Your task to perform on an android device: choose inbox layout in the gmail app Image 0: 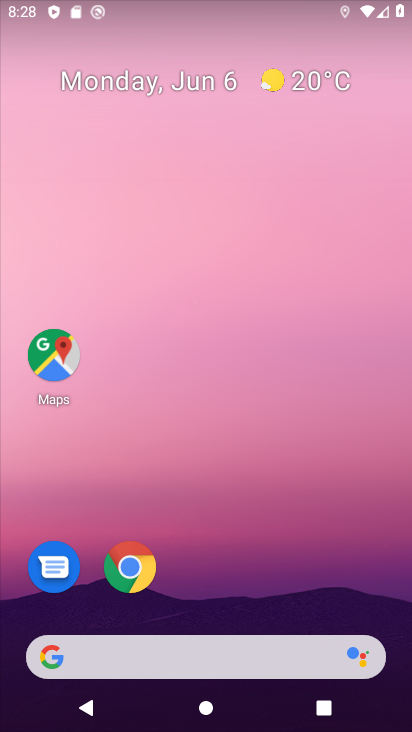
Step 0: drag from (189, 607) to (239, 41)
Your task to perform on an android device: choose inbox layout in the gmail app Image 1: 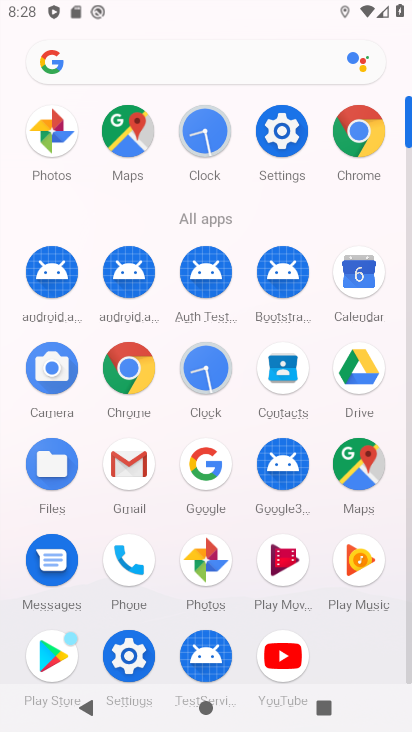
Step 1: click (135, 463)
Your task to perform on an android device: choose inbox layout in the gmail app Image 2: 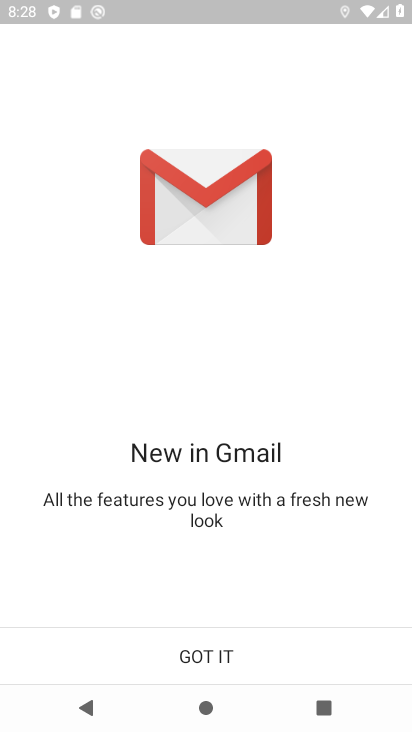
Step 2: click (124, 651)
Your task to perform on an android device: choose inbox layout in the gmail app Image 3: 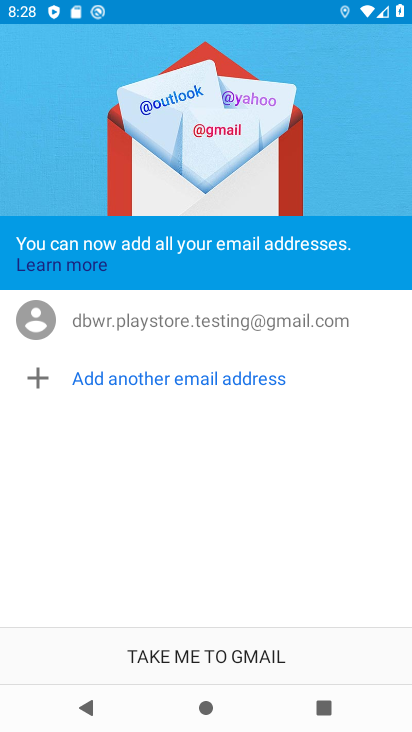
Step 3: click (124, 651)
Your task to perform on an android device: choose inbox layout in the gmail app Image 4: 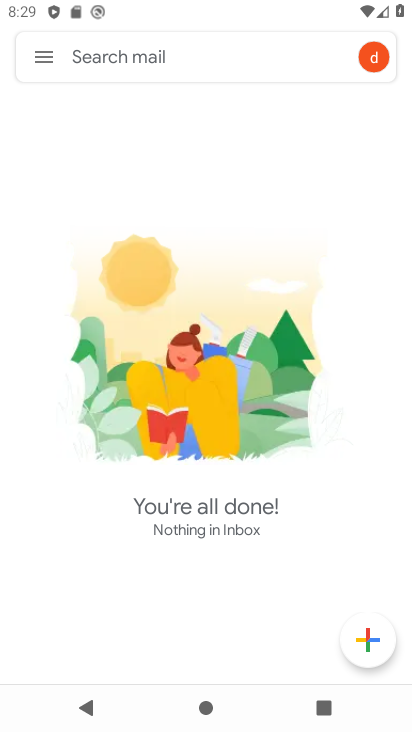
Step 4: click (56, 62)
Your task to perform on an android device: choose inbox layout in the gmail app Image 5: 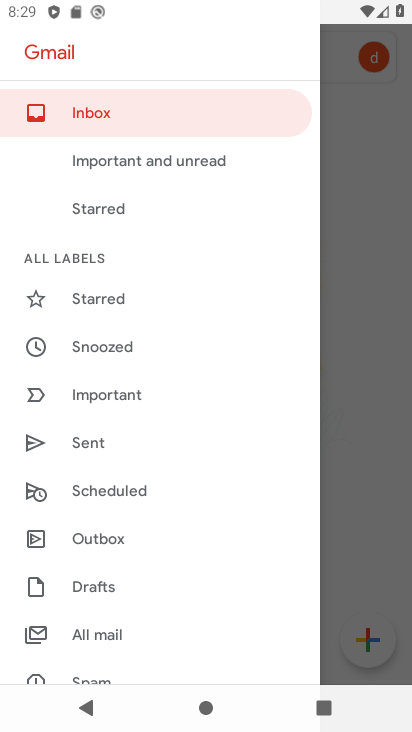
Step 5: drag from (69, 623) to (98, 14)
Your task to perform on an android device: choose inbox layout in the gmail app Image 6: 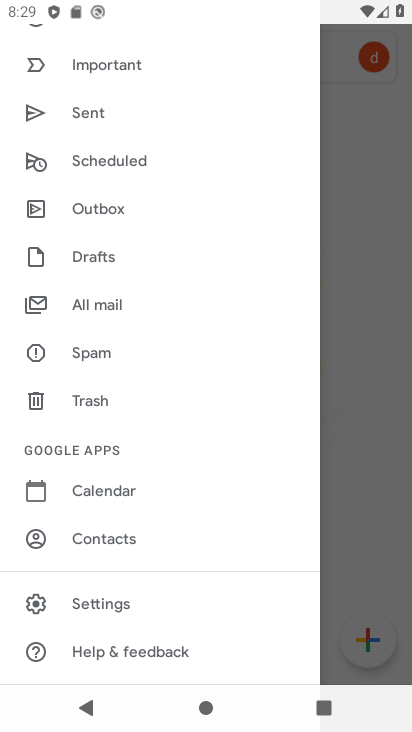
Step 6: click (107, 599)
Your task to perform on an android device: choose inbox layout in the gmail app Image 7: 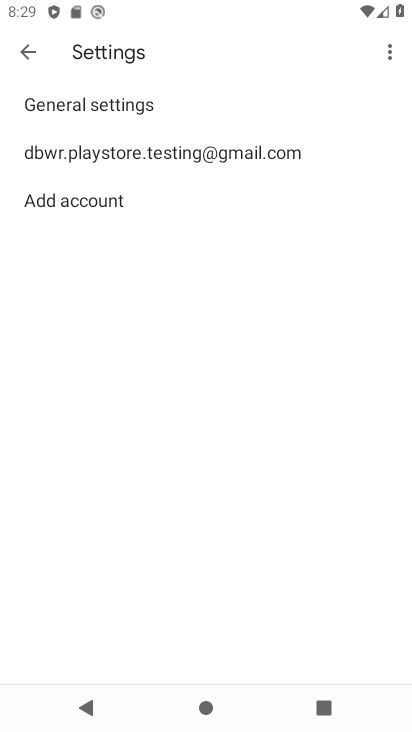
Step 7: click (134, 160)
Your task to perform on an android device: choose inbox layout in the gmail app Image 8: 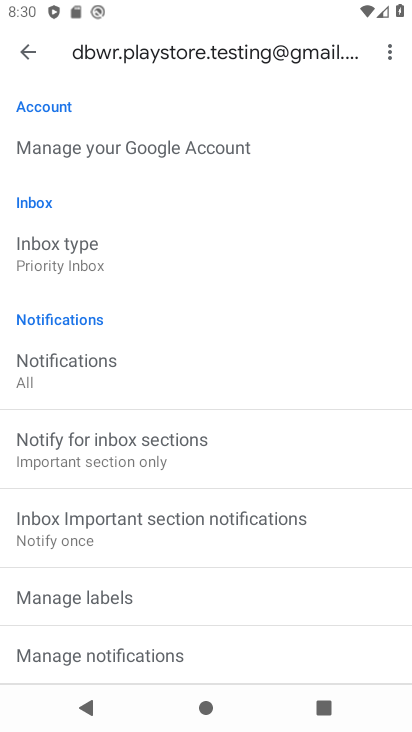
Step 8: task complete